Your task to perform on an android device: Open battery settings Image 0: 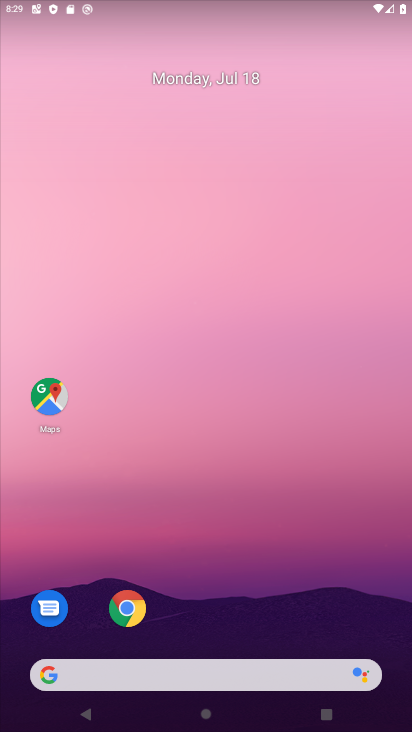
Step 0: drag from (240, 718) to (217, 170)
Your task to perform on an android device: Open battery settings Image 1: 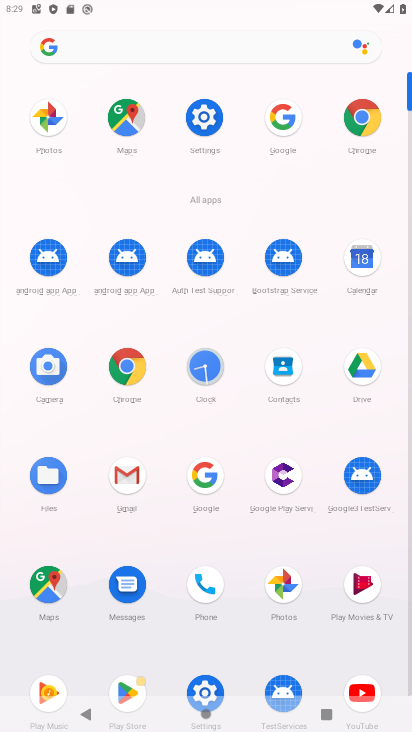
Step 1: click (205, 112)
Your task to perform on an android device: Open battery settings Image 2: 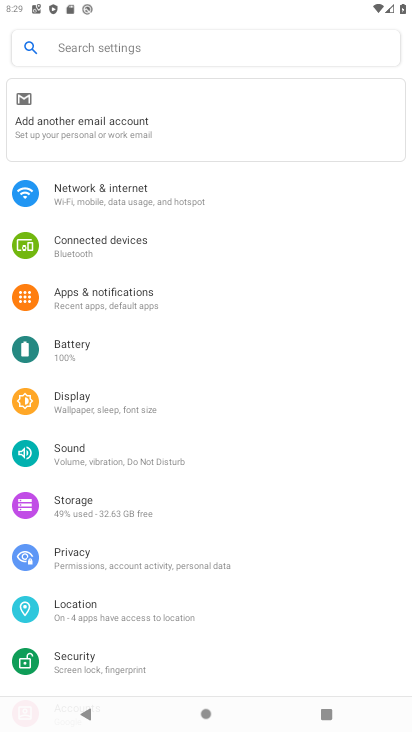
Step 2: click (76, 337)
Your task to perform on an android device: Open battery settings Image 3: 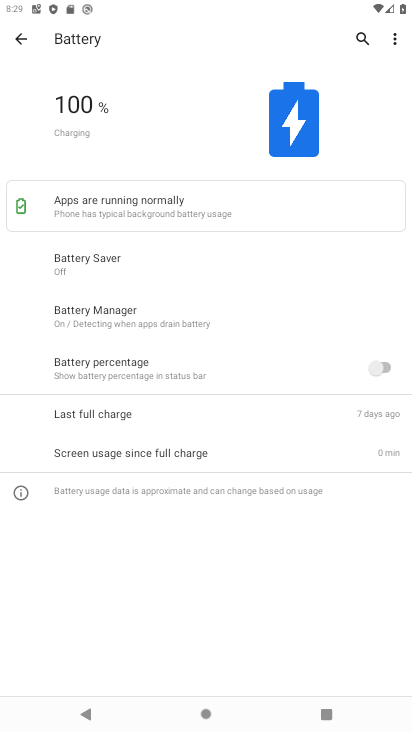
Step 3: task complete